Your task to perform on an android device: find which apps use the phone's location Image 0: 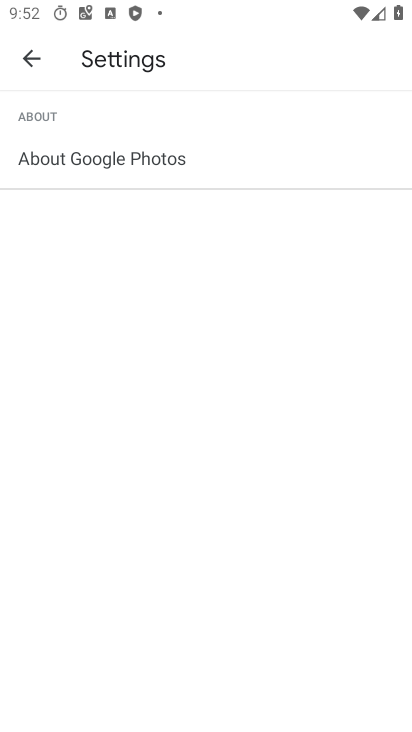
Step 0: press home button
Your task to perform on an android device: find which apps use the phone's location Image 1: 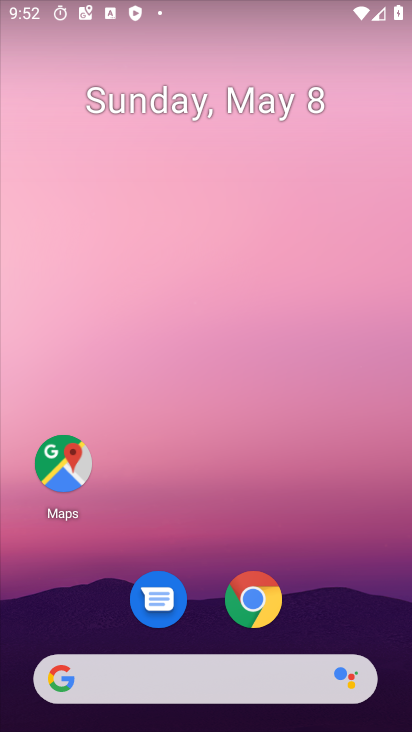
Step 1: drag from (281, 613) to (282, 452)
Your task to perform on an android device: find which apps use the phone's location Image 2: 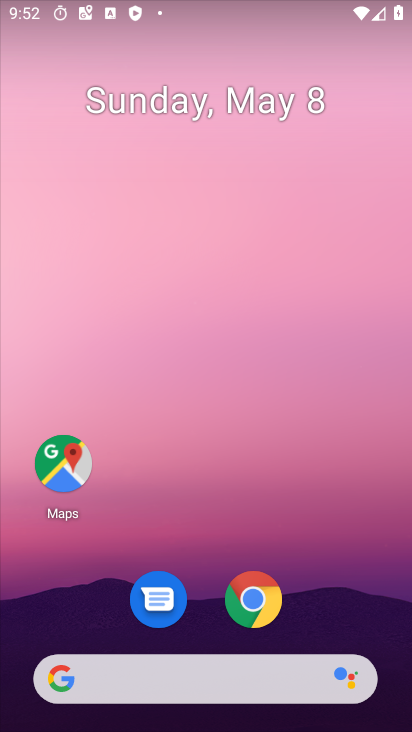
Step 2: drag from (260, 642) to (297, 22)
Your task to perform on an android device: find which apps use the phone's location Image 3: 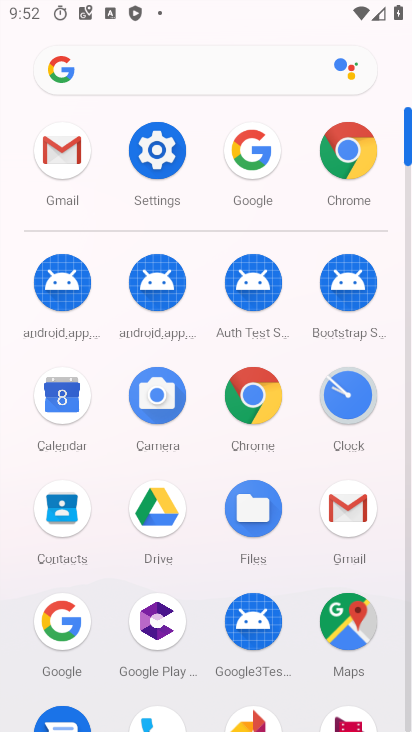
Step 3: drag from (305, 614) to (309, 500)
Your task to perform on an android device: find which apps use the phone's location Image 4: 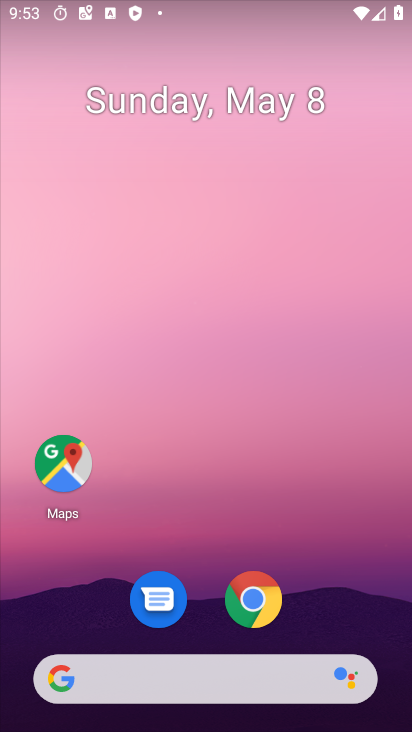
Step 4: drag from (297, 691) to (312, 339)
Your task to perform on an android device: find which apps use the phone's location Image 5: 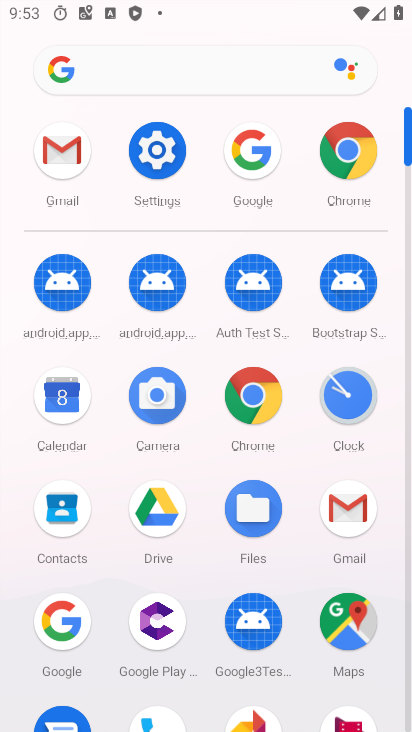
Step 5: click (141, 152)
Your task to perform on an android device: find which apps use the phone's location Image 6: 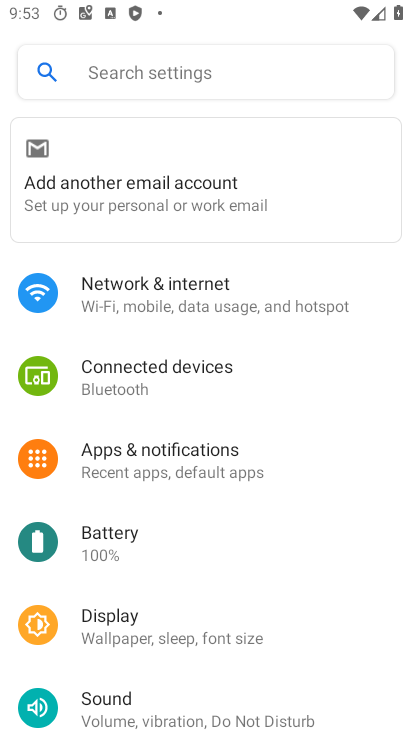
Step 6: drag from (228, 583) to (231, 387)
Your task to perform on an android device: find which apps use the phone's location Image 7: 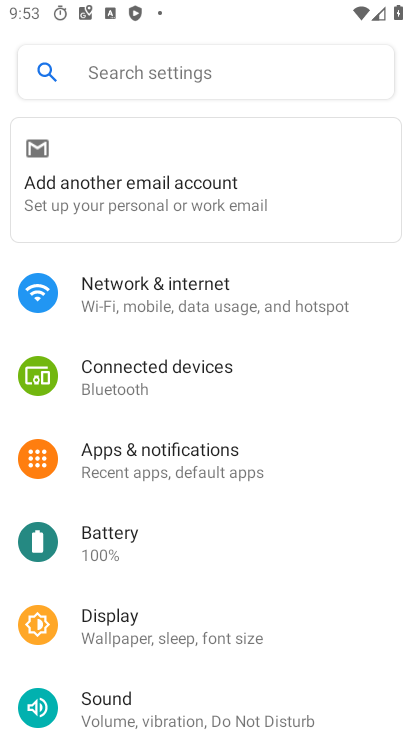
Step 7: drag from (204, 557) to (202, 335)
Your task to perform on an android device: find which apps use the phone's location Image 8: 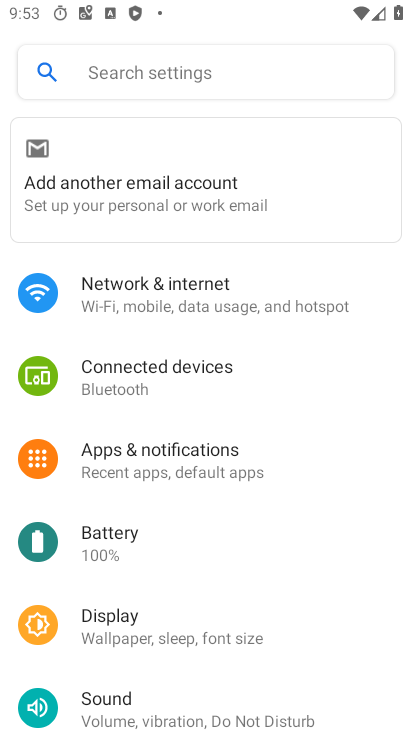
Step 8: drag from (222, 505) to (229, 214)
Your task to perform on an android device: find which apps use the phone's location Image 9: 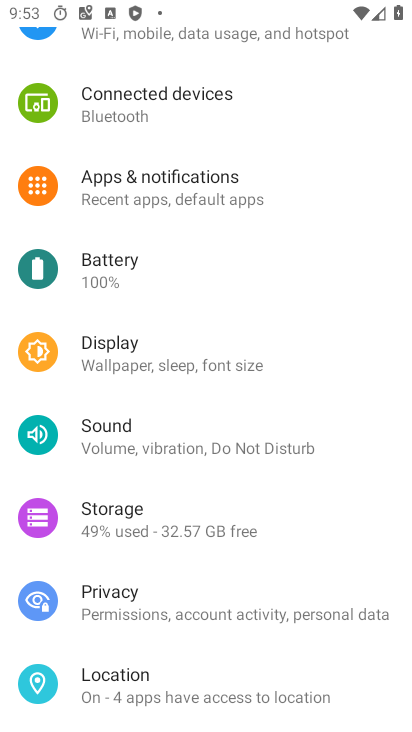
Step 9: click (173, 693)
Your task to perform on an android device: find which apps use the phone's location Image 10: 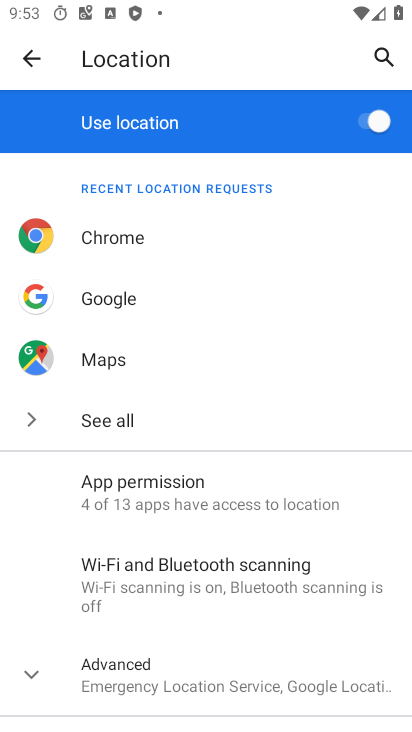
Step 10: click (138, 418)
Your task to perform on an android device: find which apps use the phone's location Image 11: 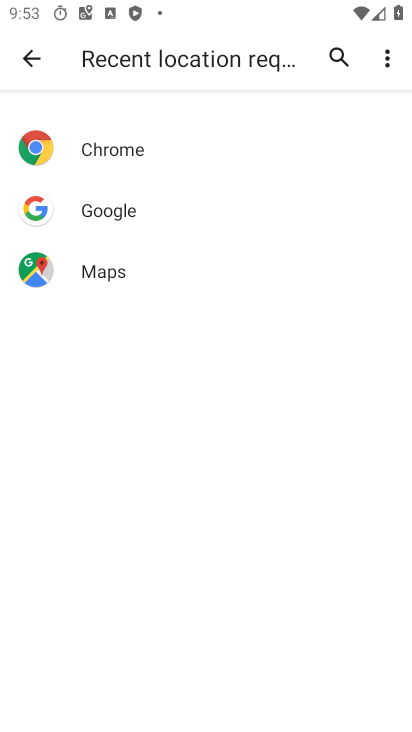
Step 11: task complete